Your task to perform on an android device: Go to network settings Image 0: 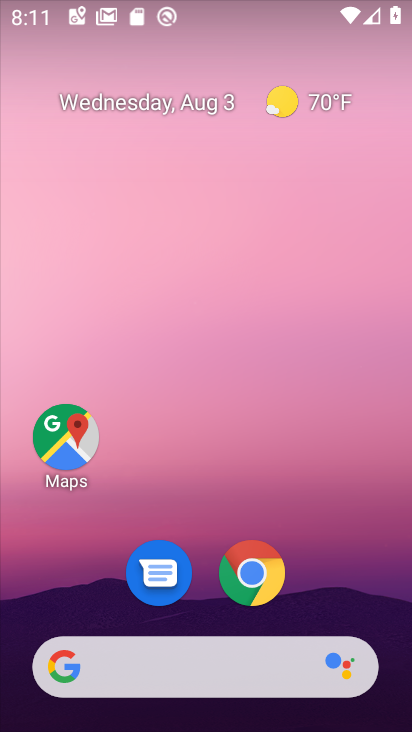
Step 0: press home button
Your task to perform on an android device: Go to network settings Image 1: 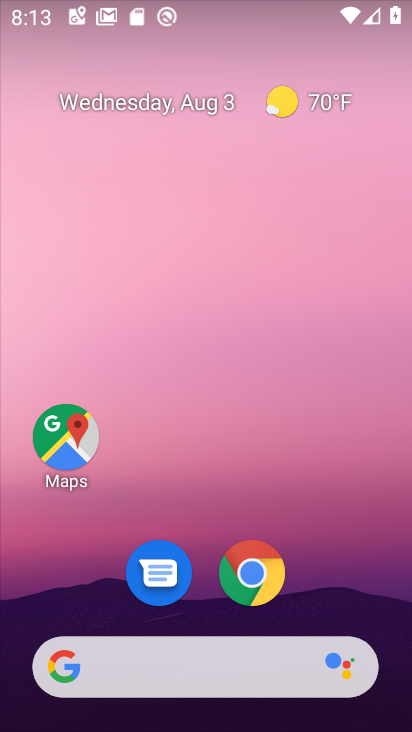
Step 1: drag from (352, 621) to (321, 5)
Your task to perform on an android device: Go to network settings Image 2: 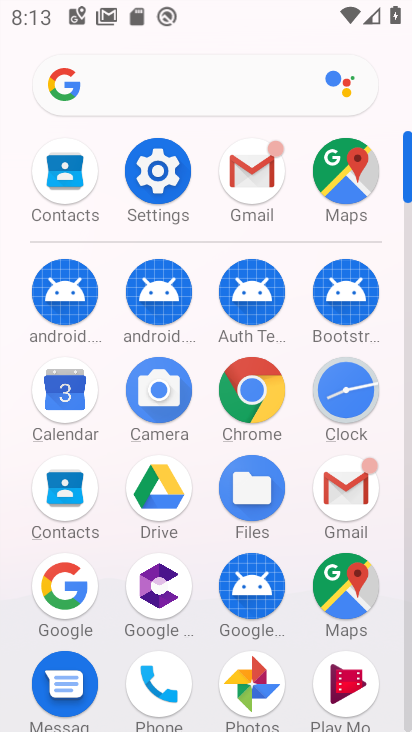
Step 2: click (159, 160)
Your task to perform on an android device: Go to network settings Image 3: 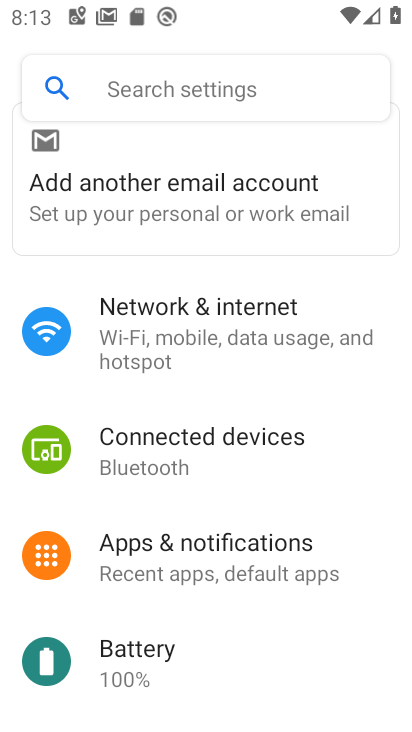
Step 3: click (163, 331)
Your task to perform on an android device: Go to network settings Image 4: 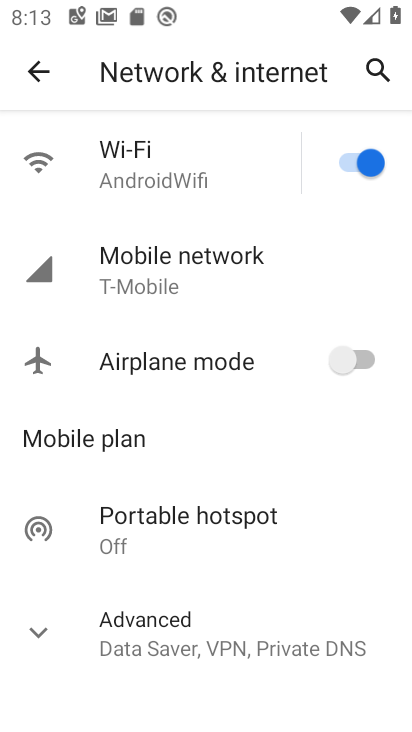
Step 4: click (145, 284)
Your task to perform on an android device: Go to network settings Image 5: 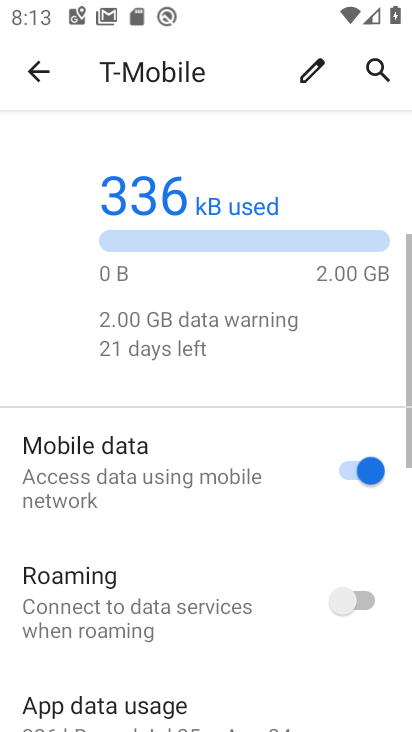
Step 5: task complete